Your task to perform on an android device: Open Chrome and go to the settings page Image 0: 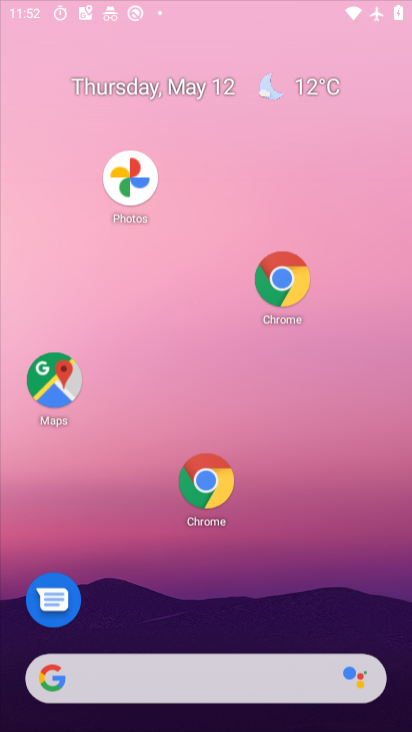
Step 0: click (85, 37)
Your task to perform on an android device: Open Chrome and go to the settings page Image 1: 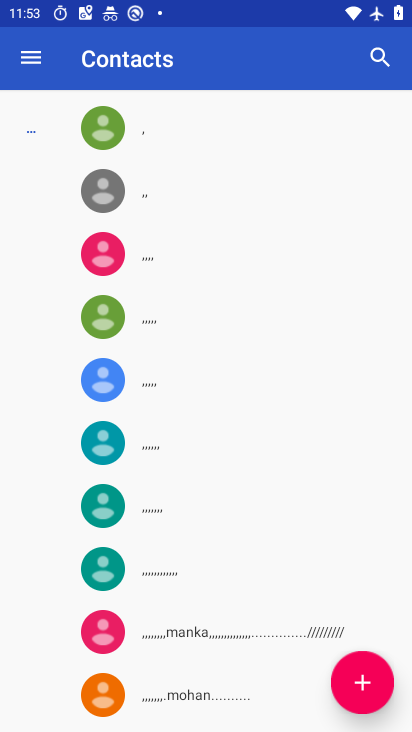
Step 1: press back button
Your task to perform on an android device: Open Chrome and go to the settings page Image 2: 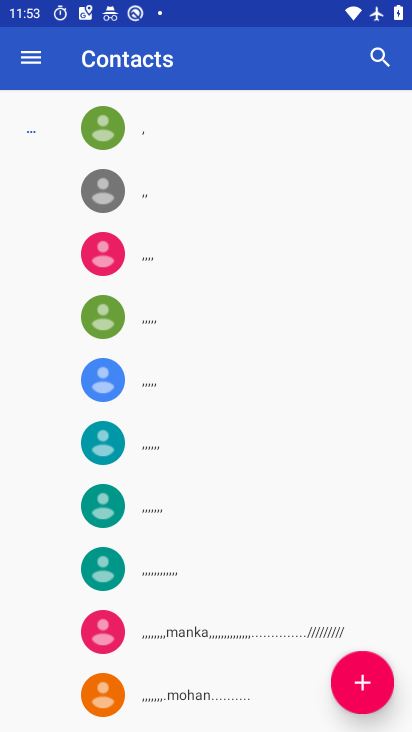
Step 2: press back button
Your task to perform on an android device: Open Chrome and go to the settings page Image 3: 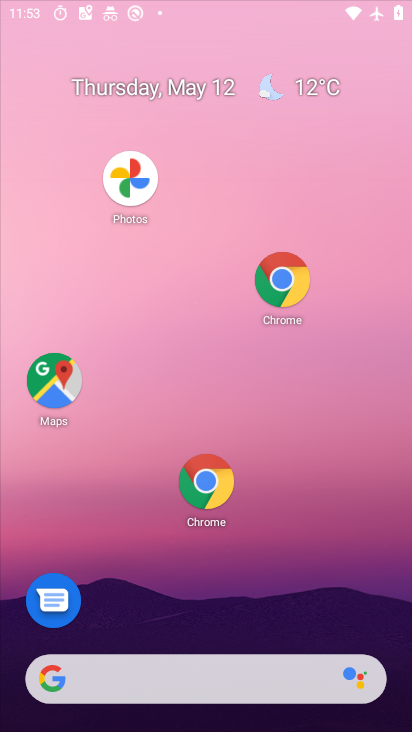
Step 3: press back button
Your task to perform on an android device: Open Chrome and go to the settings page Image 4: 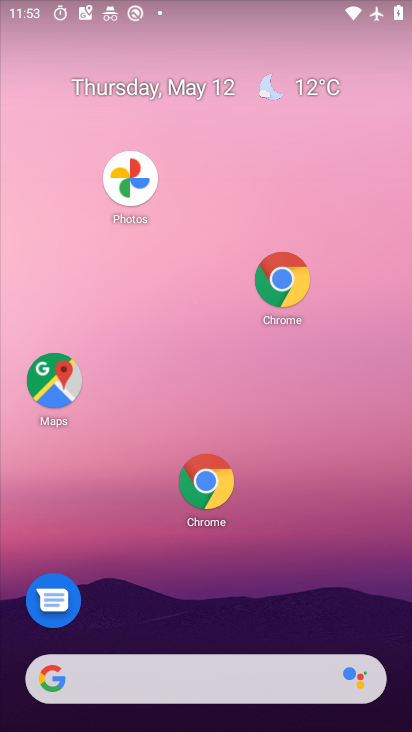
Step 4: drag from (356, 616) to (134, 2)
Your task to perform on an android device: Open Chrome and go to the settings page Image 5: 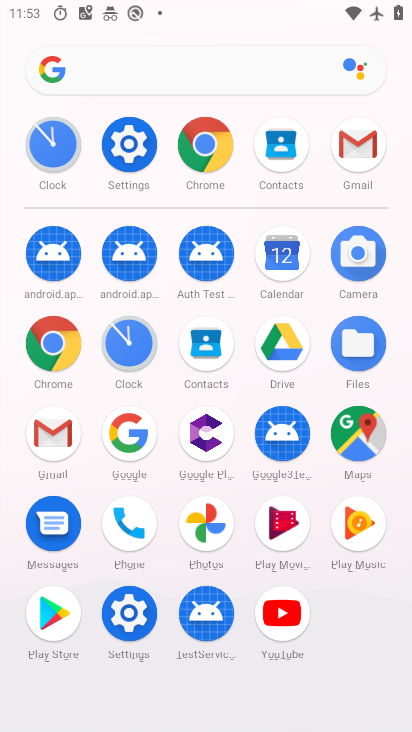
Step 5: click (127, 159)
Your task to perform on an android device: Open Chrome and go to the settings page Image 6: 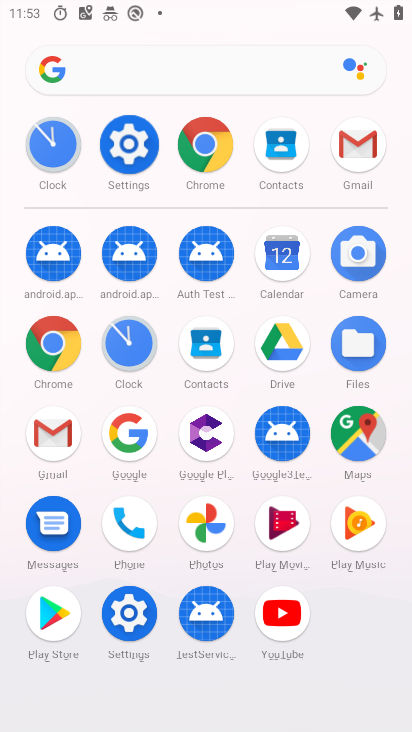
Step 6: click (127, 159)
Your task to perform on an android device: Open Chrome and go to the settings page Image 7: 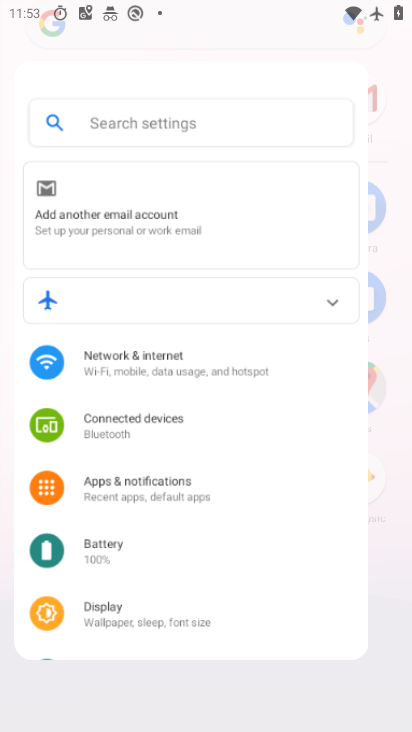
Step 7: click (127, 158)
Your task to perform on an android device: Open Chrome and go to the settings page Image 8: 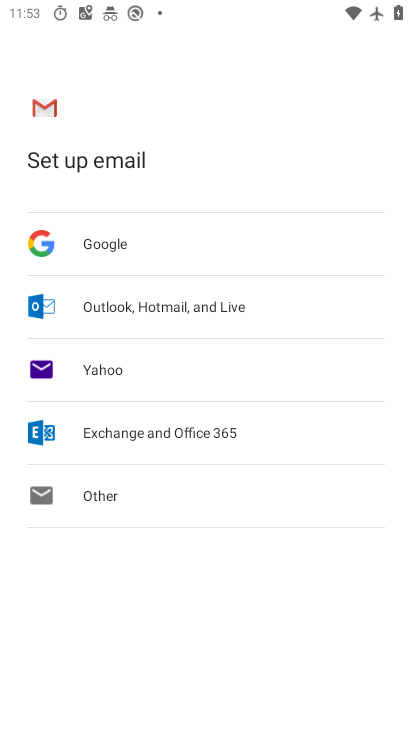
Step 8: press back button
Your task to perform on an android device: Open Chrome and go to the settings page Image 9: 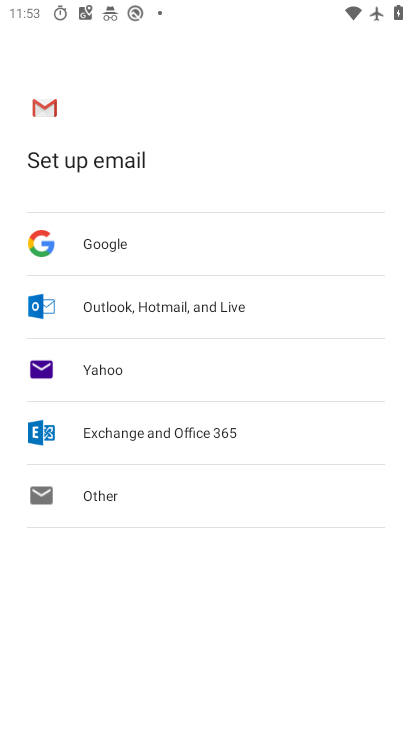
Step 9: press back button
Your task to perform on an android device: Open Chrome and go to the settings page Image 10: 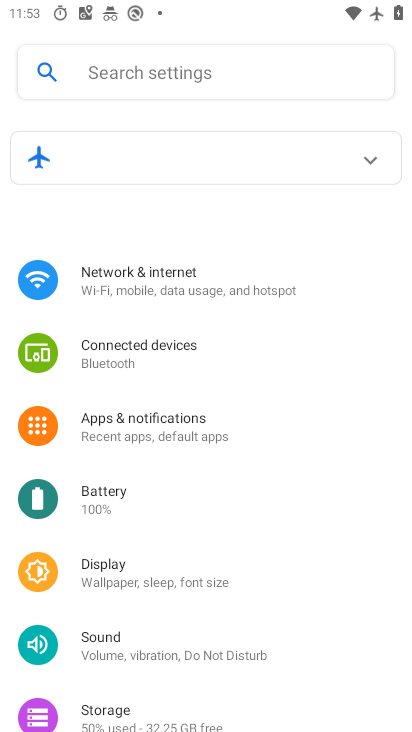
Step 10: press back button
Your task to perform on an android device: Open Chrome and go to the settings page Image 11: 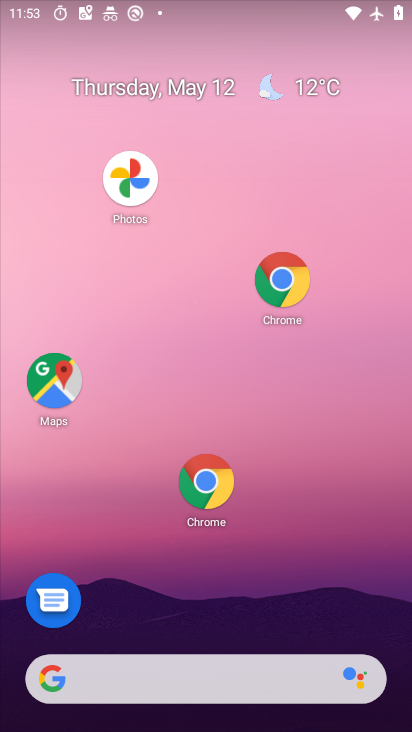
Step 11: drag from (311, 629) to (90, 60)
Your task to perform on an android device: Open Chrome and go to the settings page Image 12: 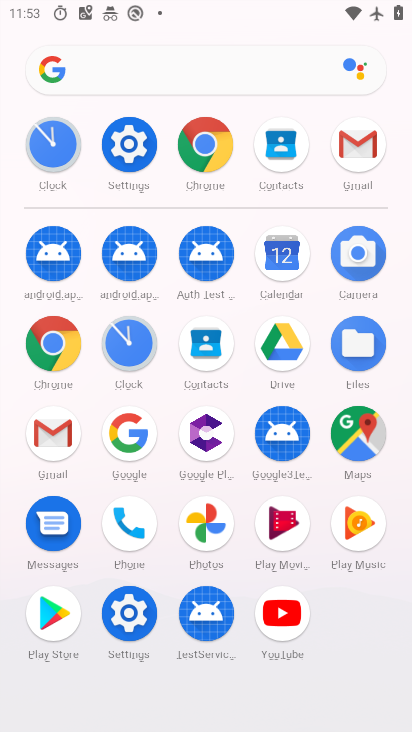
Step 12: click (125, 147)
Your task to perform on an android device: Open Chrome and go to the settings page Image 13: 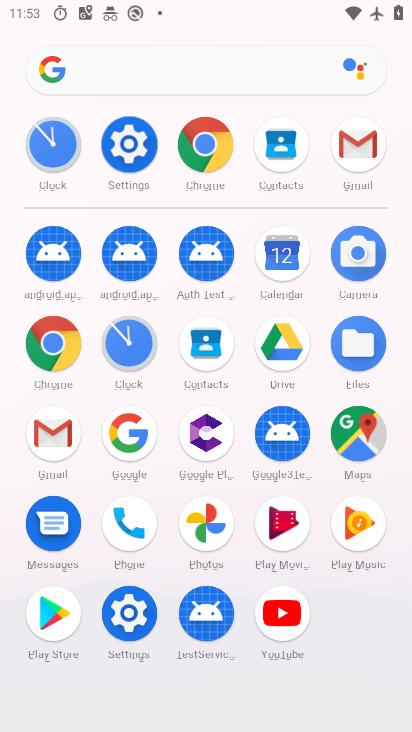
Step 13: click (125, 147)
Your task to perform on an android device: Open Chrome and go to the settings page Image 14: 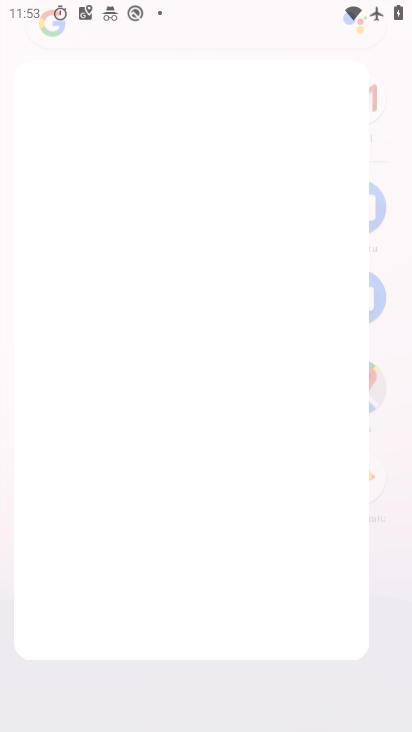
Step 14: click (125, 147)
Your task to perform on an android device: Open Chrome and go to the settings page Image 15: 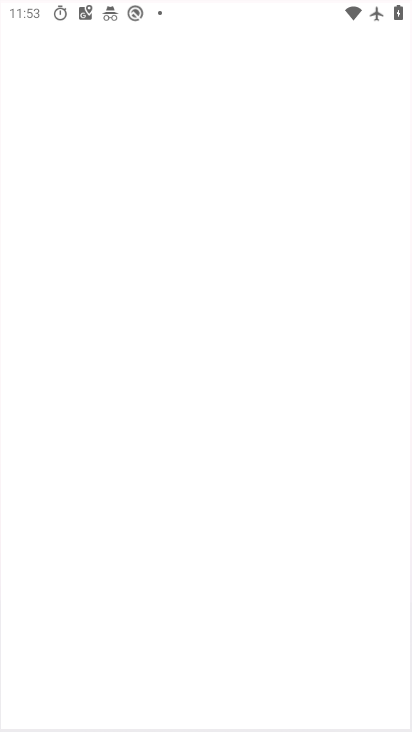
Step 15: click (126, 146)
Your task to perform on an android device: Open Chrome and go to the settings page Image 16: 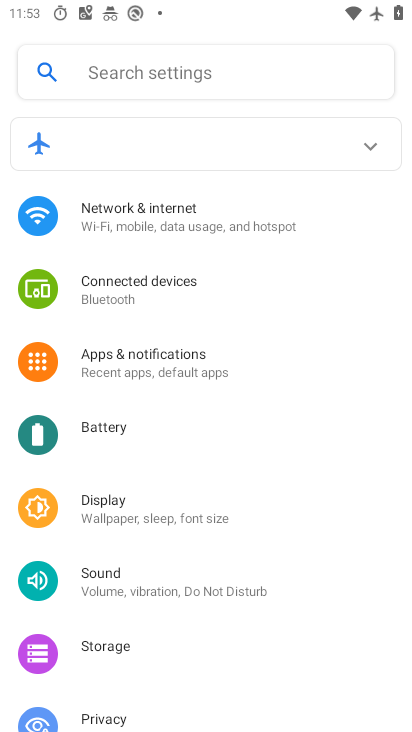
Step 16: click (126, 146)
Your task to perform on an android device: Open Chrome and go to the settings page Image 17: 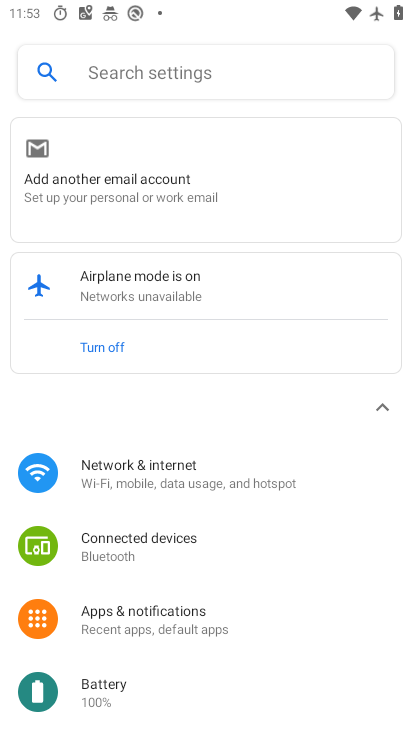
Step 17: click (179, 466)
Your task to perform on an android device: Open Chrome and go to the settings page Image 18: 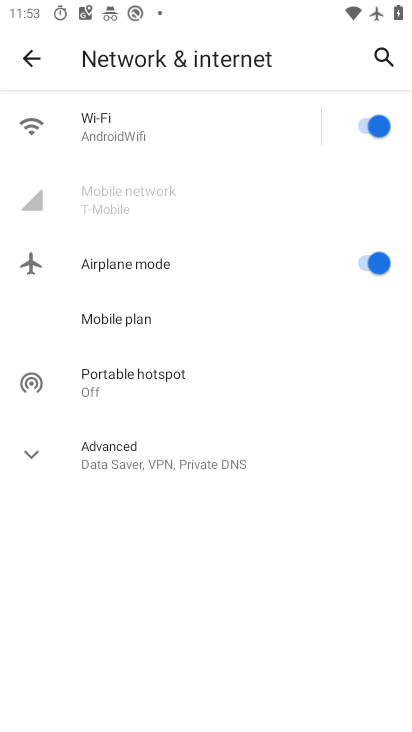
Step 18: click (24, 49)
Your task to perform on an android device: Open Chrome and go to the settings page Image 19: 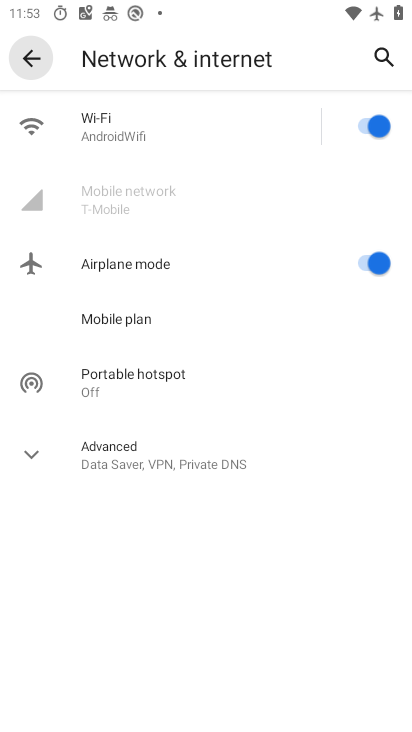
Step 19: click (25, 54)
Your task to perform on an android device: Open Chrome and go to the settings page Image 20: 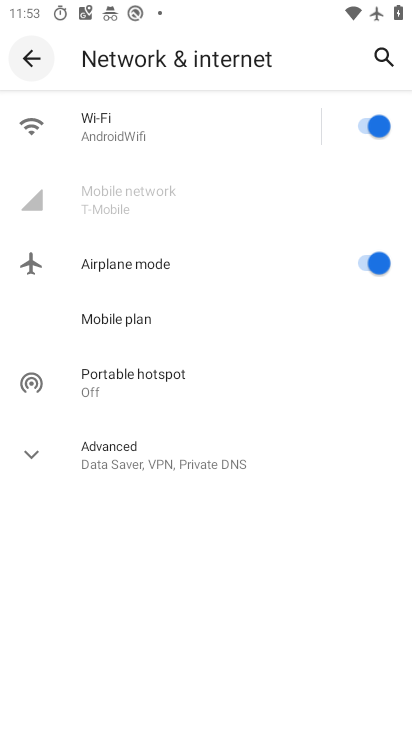
Step 20: click (25, 54)
Your task to perform on an android device: Open Chrome and go to the settings page Image 21: 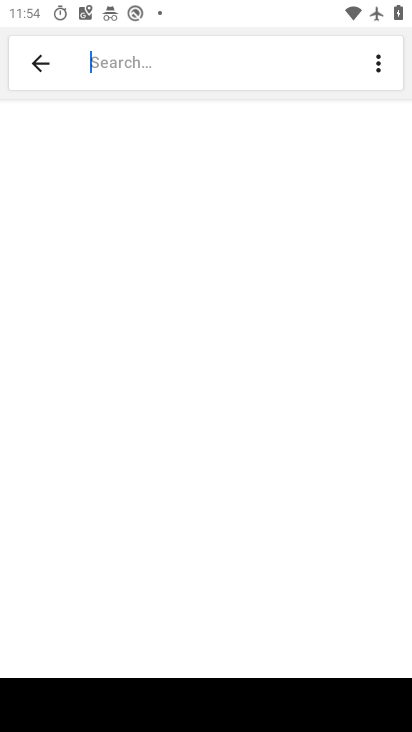
Step 21: press home button
Your task to perform on an android device: Open Chrome and go to the settings page Image 22: 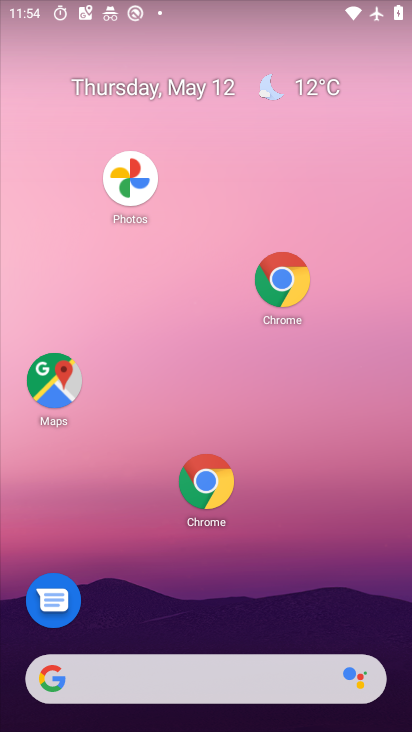
Step 22: drag from (333, 499) to (77, 34)
Your task to perform on an android device: Open Chrome and go to the settings page Image 23: 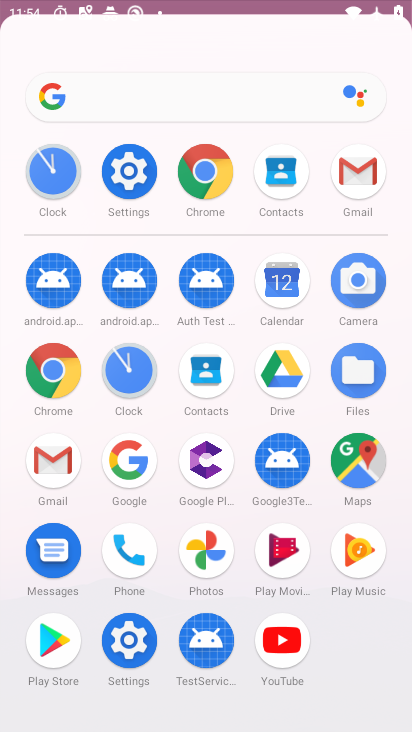
Step 23: drag from (286, 498) to (94, 63)
Your task to perform on an android device: Open Chrome and go to the settings page Image 24: 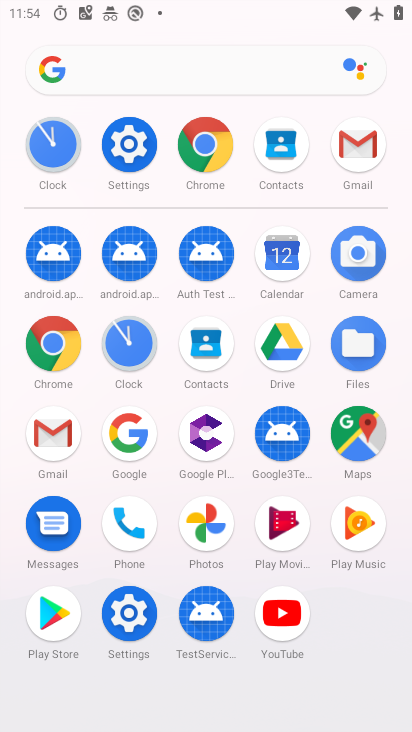
Step 24: click (200, 144)
Your task to perform on an android device: Open Chrome and go to the settings page Image 25: 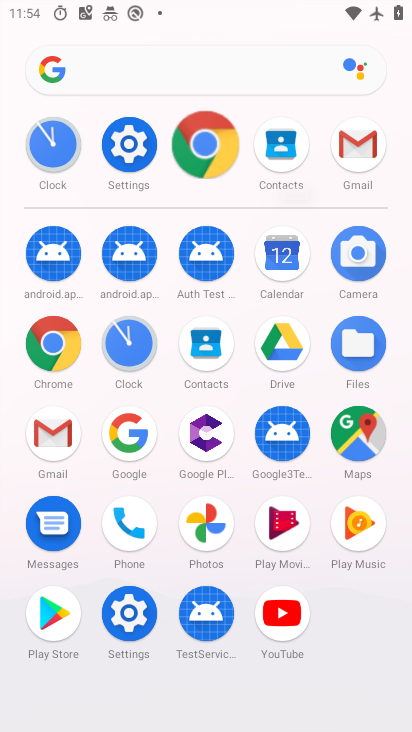
Step 25: click (202, 144)
Your task to perform on an android device: Open Chrome and go to the settings page Image 26: 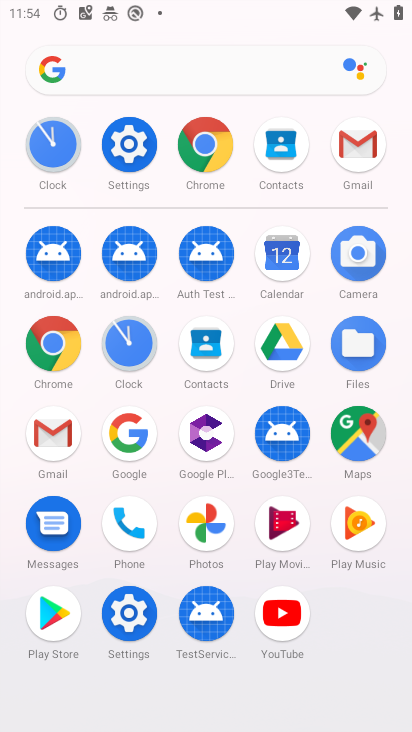
Step 26: click (202, 144)
Your task to perform on an android device: Open Chrome and go to the settings page Image 27: 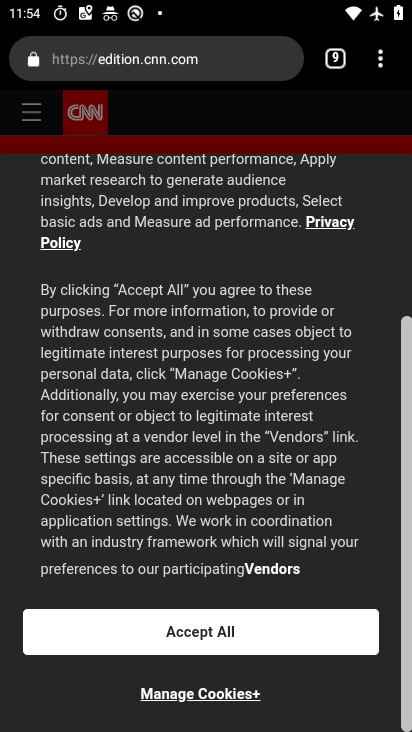
Step 27: click (384, 61)
Your task to perform on an android device: Open Chrome and go to the settings page Image 28: 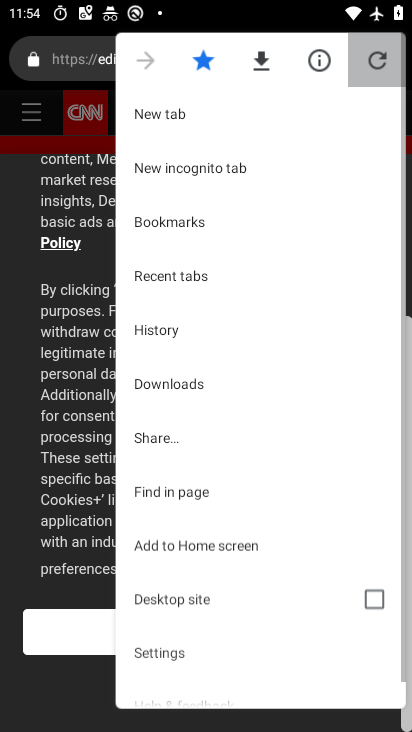
Step 28: click (384, 61)
Your task to perform on an android device: Open Chrome and go to the settings page Image 29: 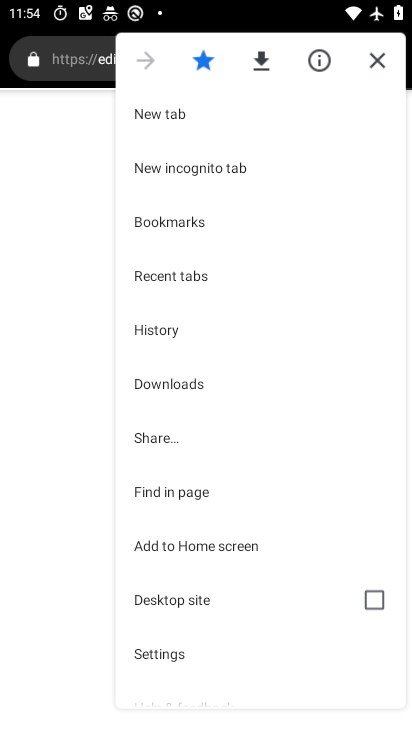
Step 29: click (159, 655)
Your task to perform on an android device: Open Chrome and go to the settings page Image 30: 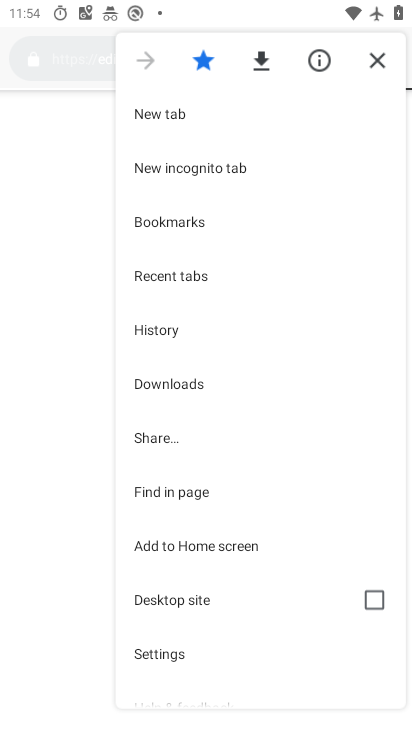
Step 30: click (159, 655)
Your task to perform on an android device: Open Chrome and go to the settings page Image 31: 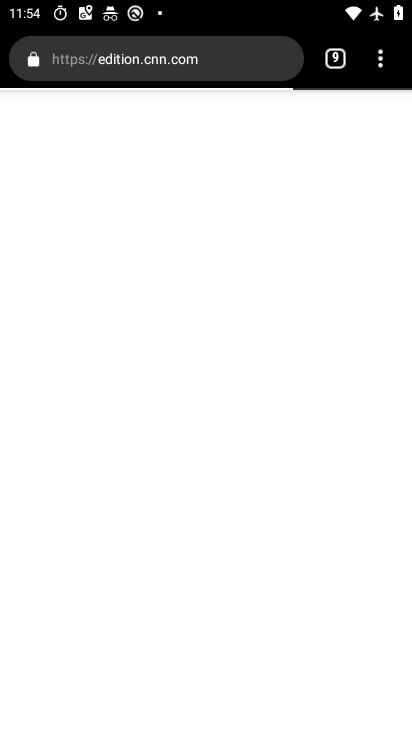
Step 31: click (158, 654)
Your task to perform on an android device: Open Chrome and go to the settings page Image 32: 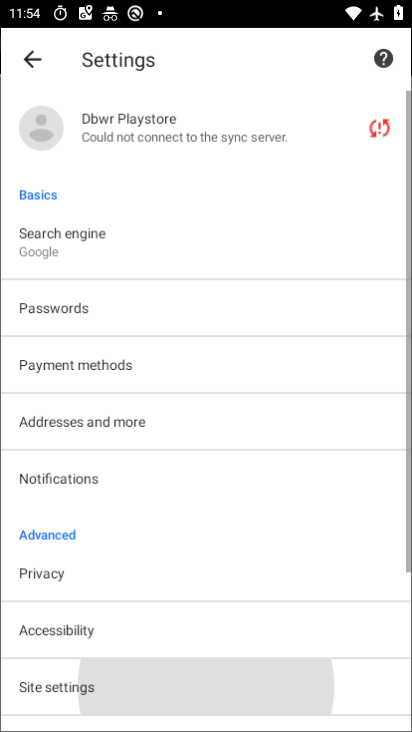
Step 32: click (157, 652)
Your task to perform on an android device: Open Chrome and go to the settings page Image 33: 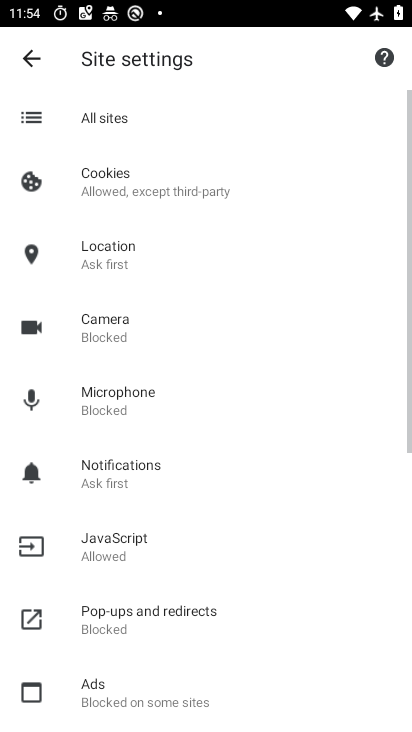
Step 33: task complete